Your task to perform on an android device: Open the Play Movies app and select the watchlist tab. Image 0: 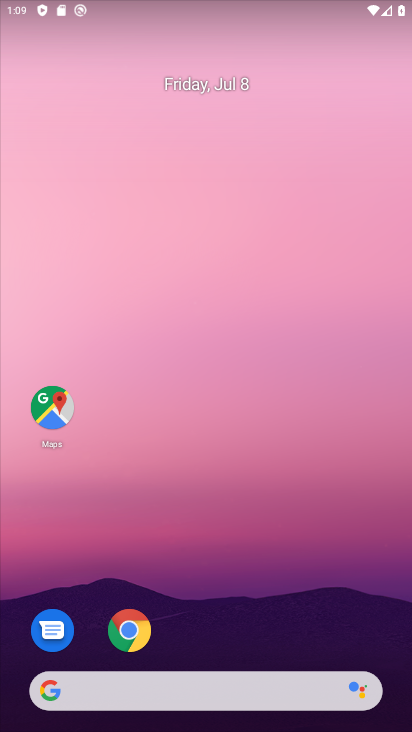
Step 0: drag from (279, 658) to (148, 210)
Your task to perform on an android device: Open the Play Movies app and select the watchlist tab. Image 1: 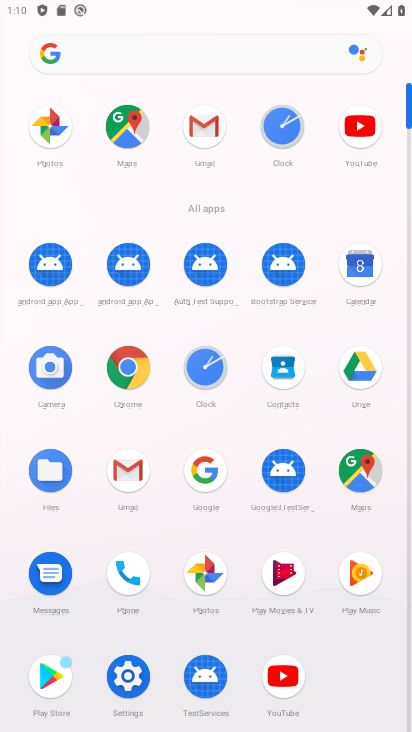
Step 1: click (359, 583)
Your task to perform on an android device: Open the Play Movies app and select the watchlist tab. Image 2: 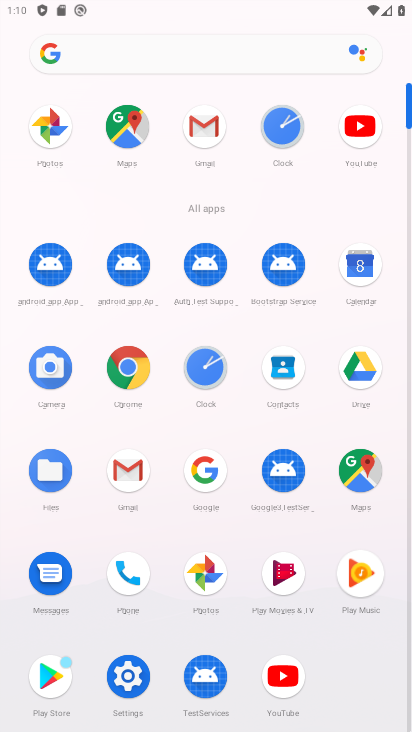
Step 2: click (363, 586)
Your task to perform on an android device: Open the Play Movies app and select the watchlist tab. Image 3: 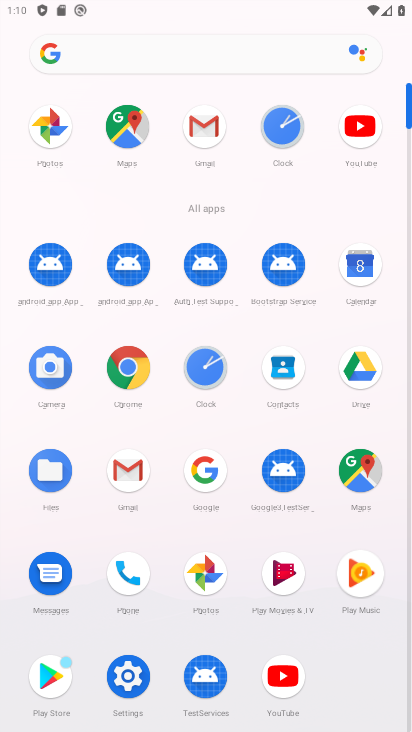
Step 3: click (366, 580)
Your task to perform on an android device: Open the Play Movies app and select the watchlist tab. Image 4: 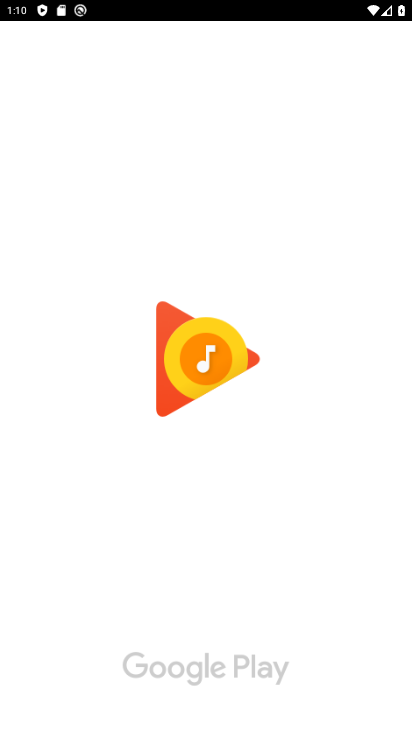
Step 4: click (365, 575)
Your task to perform on an android device: Open the Play Movies app and select the watchlist tab. Image 5: 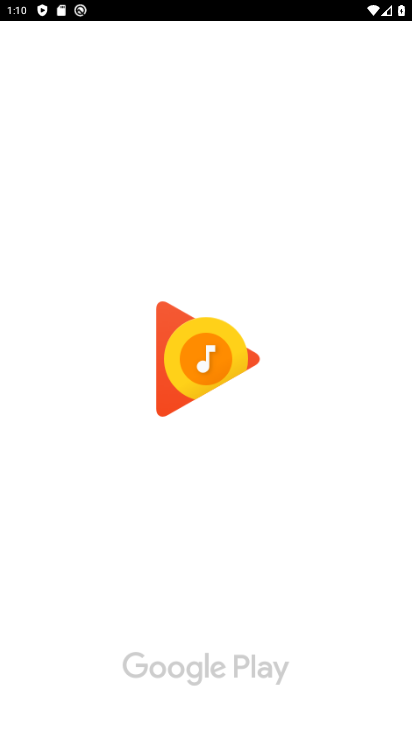
Step 5: click (316, 557)
Your task to perform on an android device: Open the Play Movies app and select the watchlist tab. Image 6: 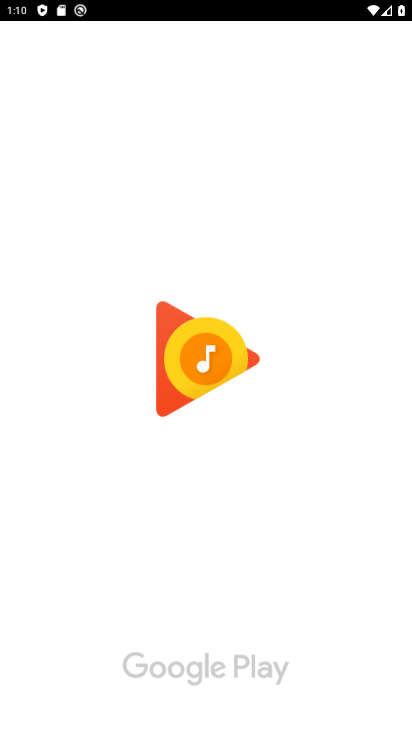
Step 6: click (323, 548)
Your task to perform on an android device: Open the Play Movies app and select the watchlist tab. Image 7: 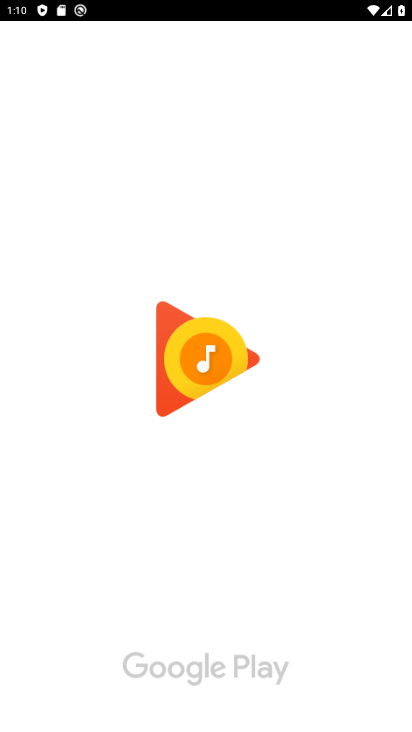
Step 7: click (323, 548)
Your task to perform on an android device: Open the Play Movies app and select the watchlist tab. Image 8: 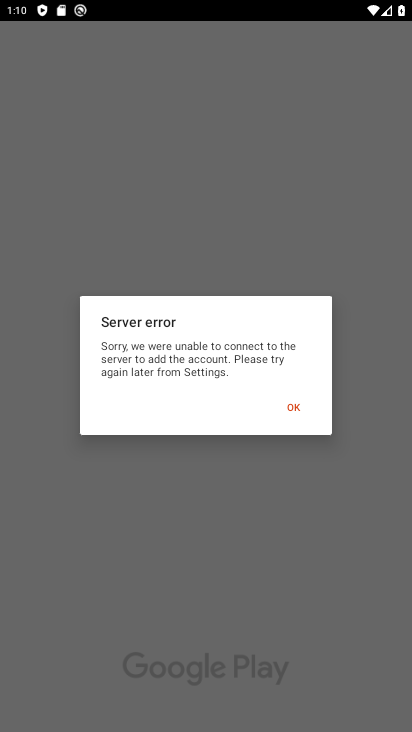
Step 8: click (323, 548)
Your task to perform on an android device: Open the Play Movies app and select the watchlist tab. Image 9: 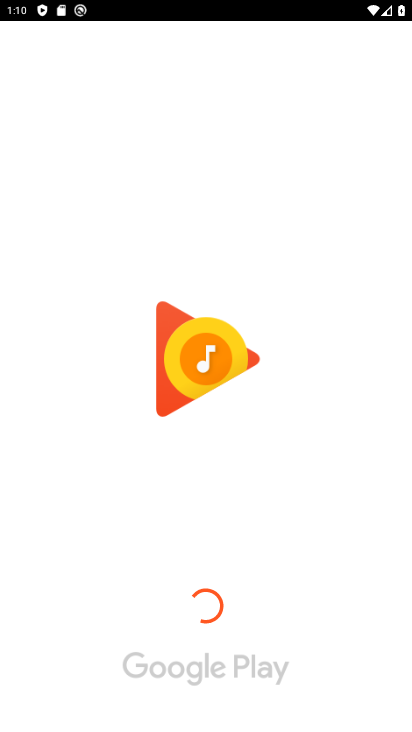
Step 9: click (304, 394)
Your task to perform on an android device: Open the Play Movies app and select the watchlist tab. Image 10: 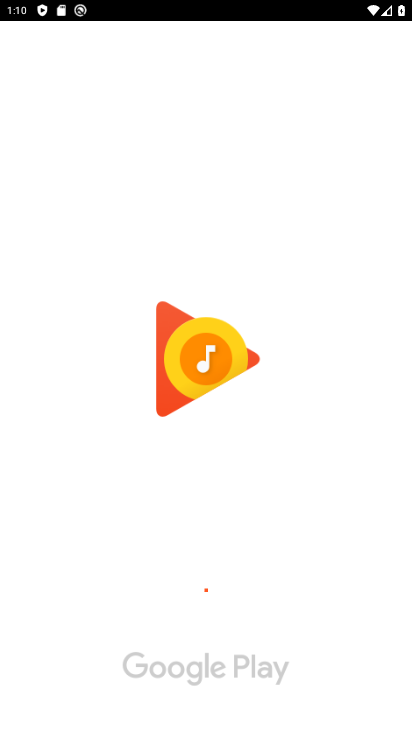
Step 10: press back button
Your task to perform on an android device: Open the Play Movies app and select the watchlist tab. Image 11: 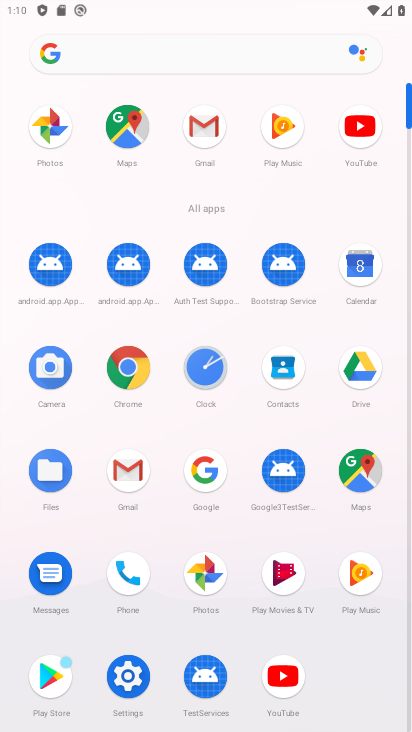
Step 11: click (283, 575)
Your task to perform on an android device: Open the Play Movies app and select the watchlist tab. Image 12: 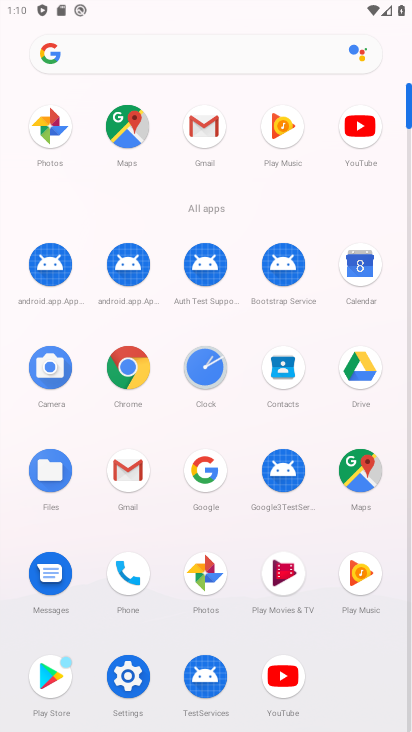
Step 12: click (283, 575)
Your task to perform on an android device: Open the Play Movies app and select the watchlist tab. Image 13: 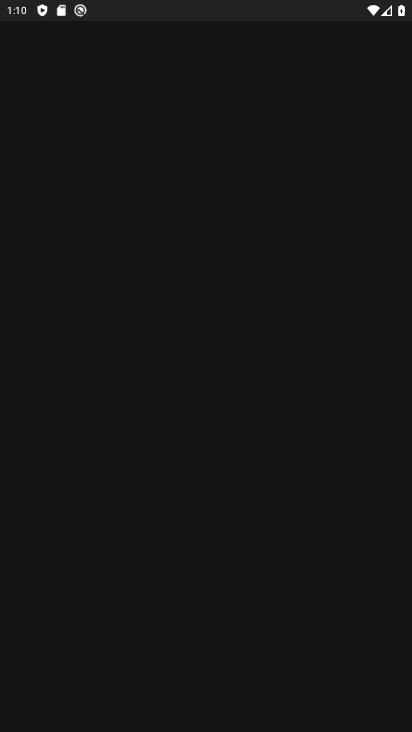
Step 13: click (284, 574)
Your task to perform on an android device: Open the Play Movies app and select the watchlist tab. Image 14: 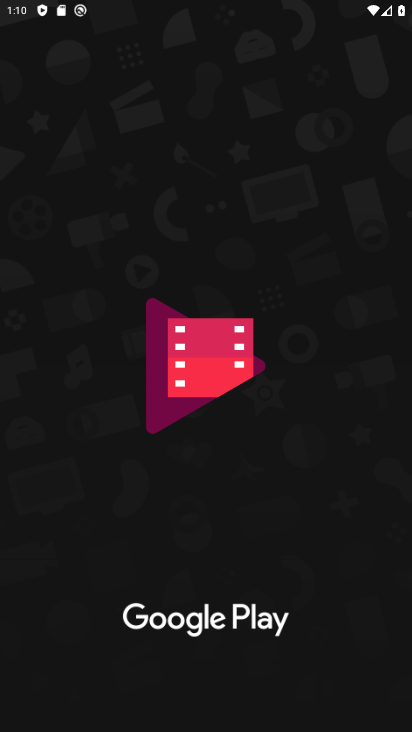
Step 14: click (182, 449)
Your task to perform on an android device: Open the Play Movies app and select the watchlist tab. Image 15: 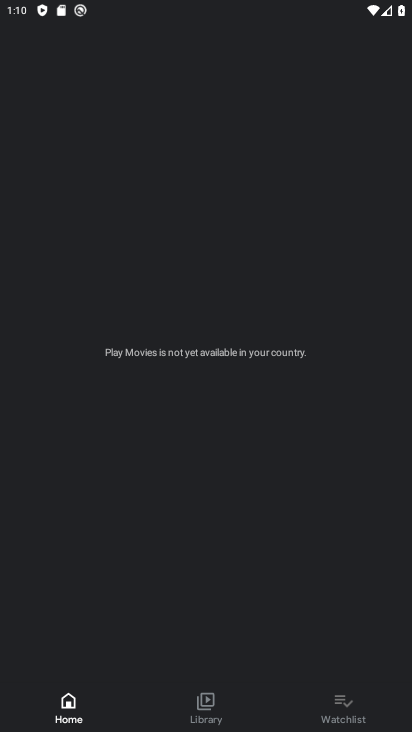
Step 15: click (342, 709)
Your task to perform on an android device: Open the Play Movies app and select the watchlist tab. Image 16: 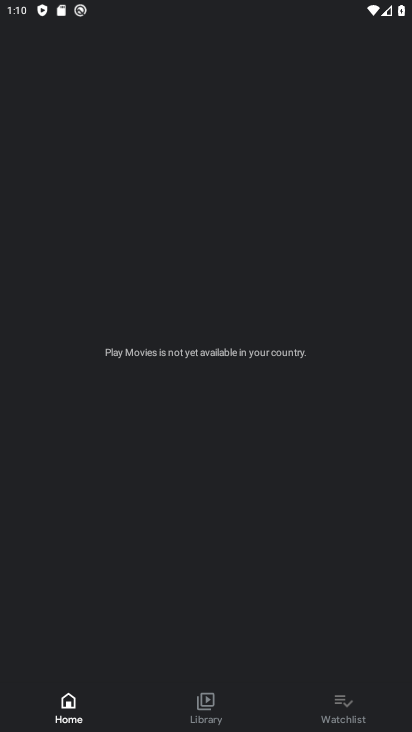
Step 16: click (347, 708)
Your task to perform on an android device: Open the Play Movies app and select the watchlist tab. Image 17: 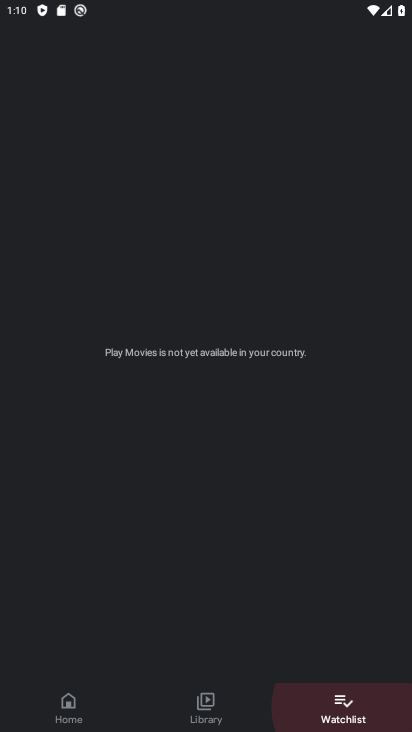
Step 17: click (357, 700)
Your task to perform on an android device: Open the Play Movies app and select the watchlist tab. Image 18: 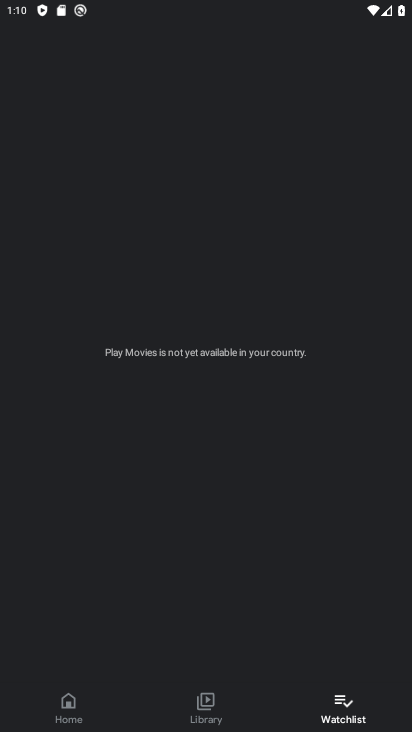
Step 18: task complete